Your task to perform on an android device: turn off improve location accuracy Image 0: 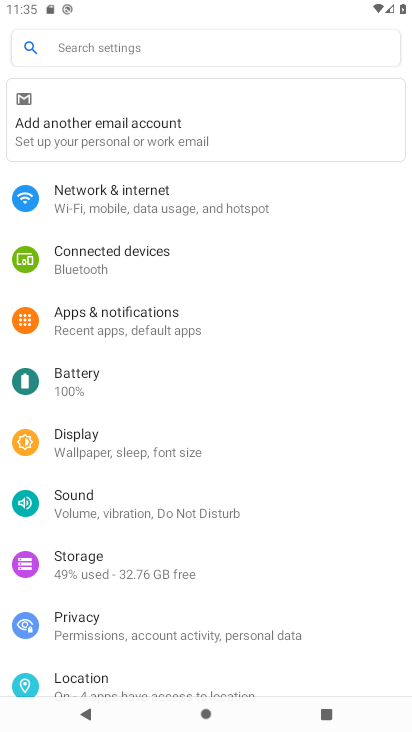
Step 0: click (147, 683)
Your task to perform on an android device: turn off improve location accuracy Image 1: 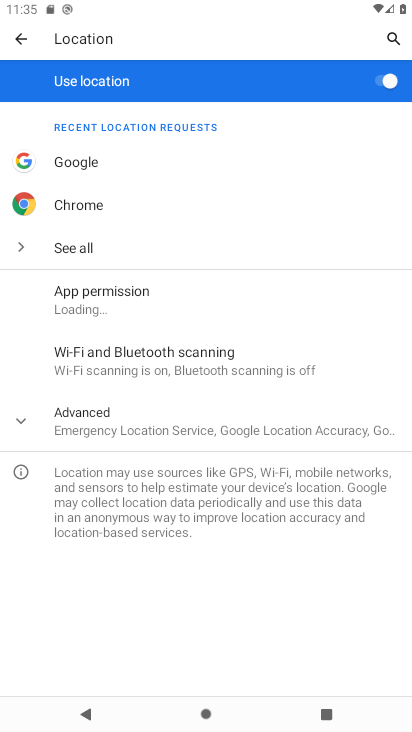
Step 1: click (168, 428)
Your task to perform on an android device: turn off improve location accuracy Image 2: 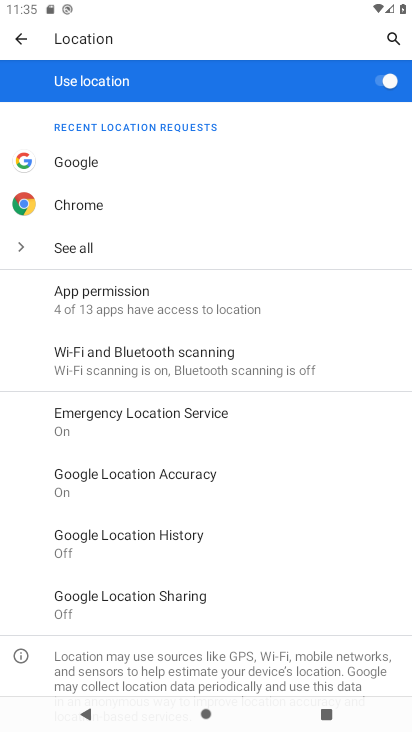
Step 2: click (142, 486)
Your task to perform on an android device: turn off improve location accuracy Image 3: 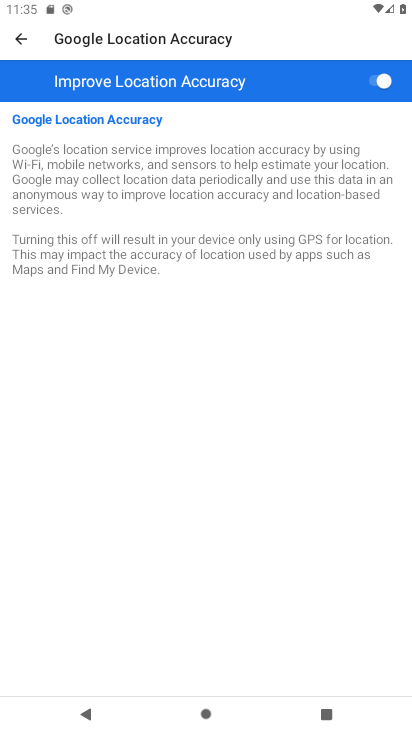
Step 3: click (380, 79)
Your task to perform on an android device: turn off improve location accuracy Image 4: 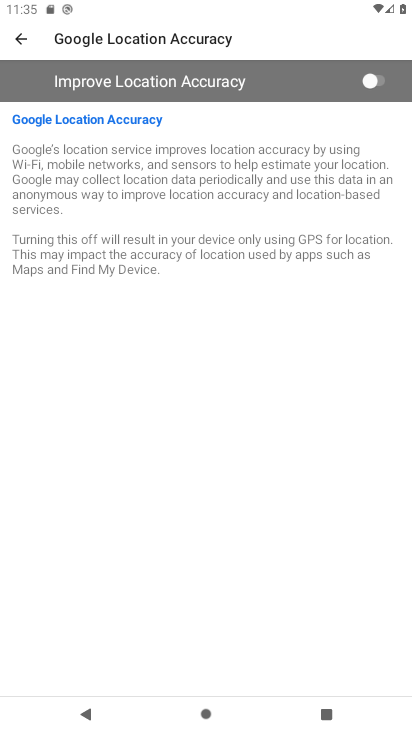
Step 4: task complete